Your task to perform on an android device: refresh tabs in the chrome app Image 0: 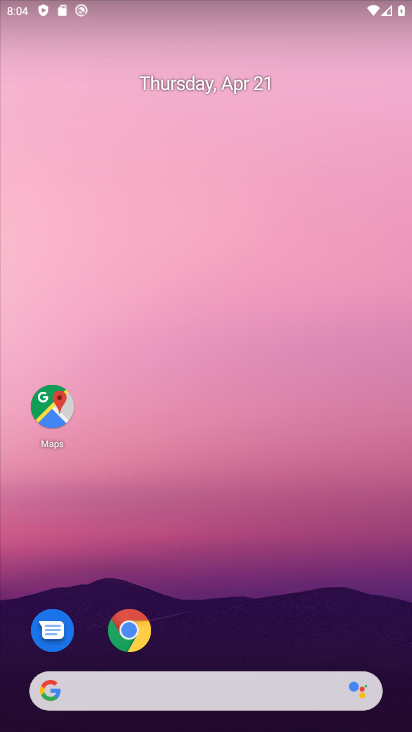
Step 0: click (126, 621)
Your task to perform on an android device: refresh tabs in the chrome app Image 1: 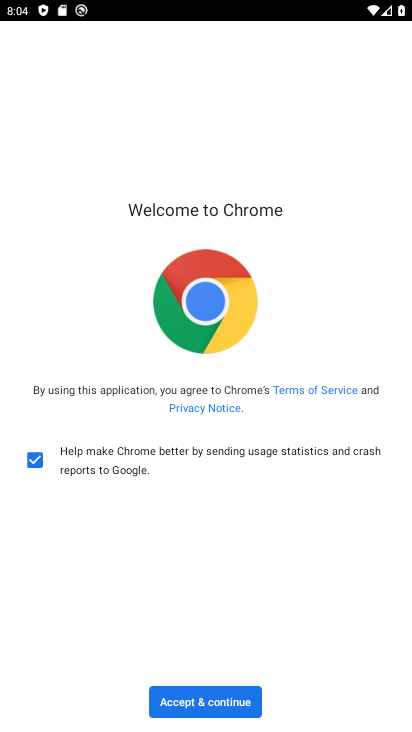
Step 1: click (194, 695)
Your task to perform on an android device: refresh tabs in the chrome app Image 2: 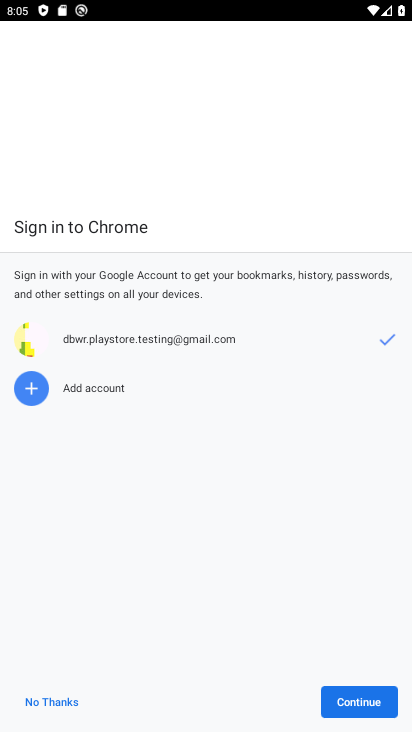
Step 2: click (354, 690)
Your task to perform on an android device: refresh tabs in the chrome app Image 3: 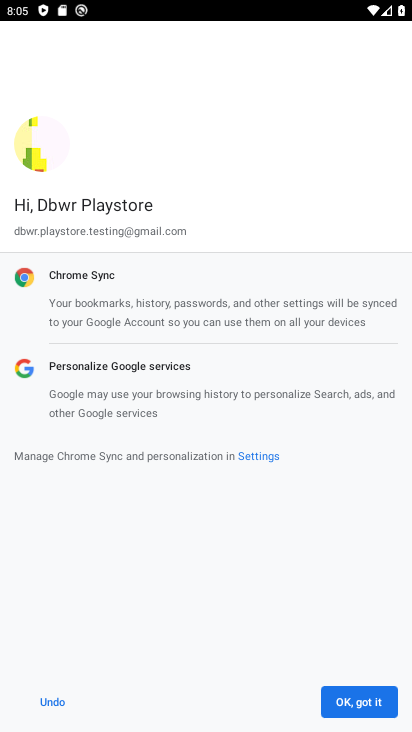
Step 3: click (361, 696)
Your task to perform on an android device: refresh tabs in the chrome app Image 4: 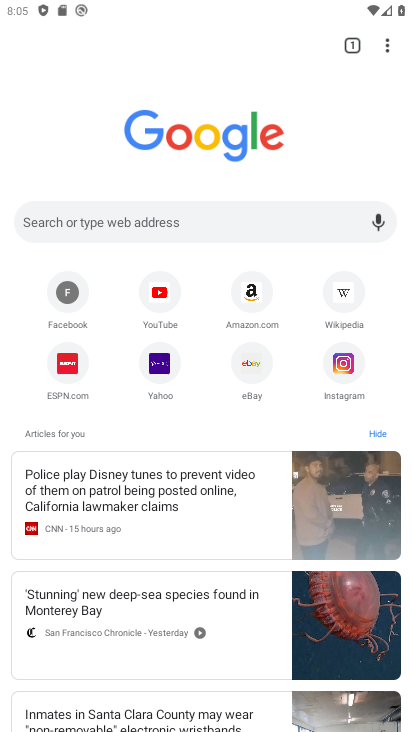
Step 4: click (390, 50)
Your task to perform on an android device: refresh tabs in the chrome app Image 5: 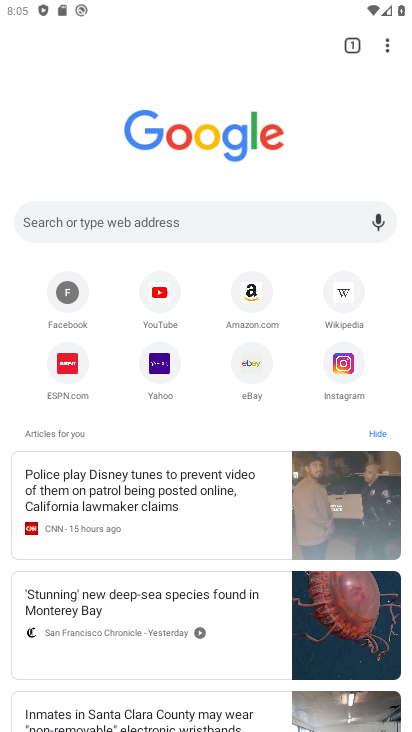
Step 5: click (393, 52)
Your task to perform on an android device: refresh tabs in the chrome app Image 6: 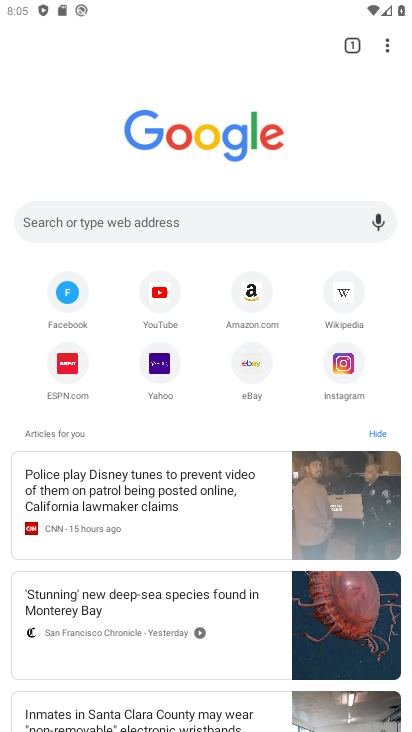
Step 6: click (388, 41)
Your task to perform on an android device: refresh tabs in the chrome app Image 7: 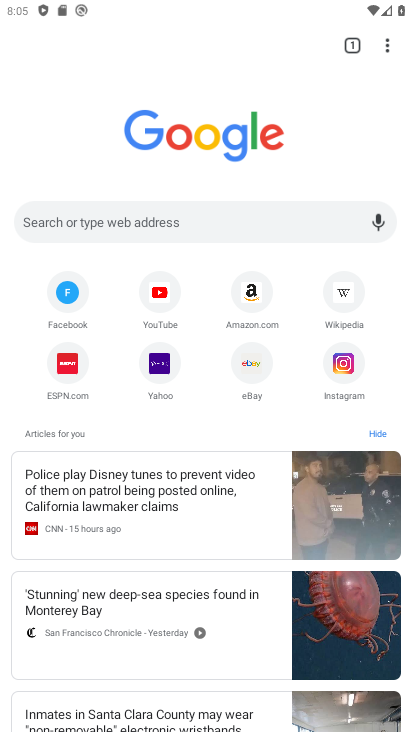
Step 7: click (393, 50)
Your task to perform on an android device: refresh tabs in the chrome app Image 8: 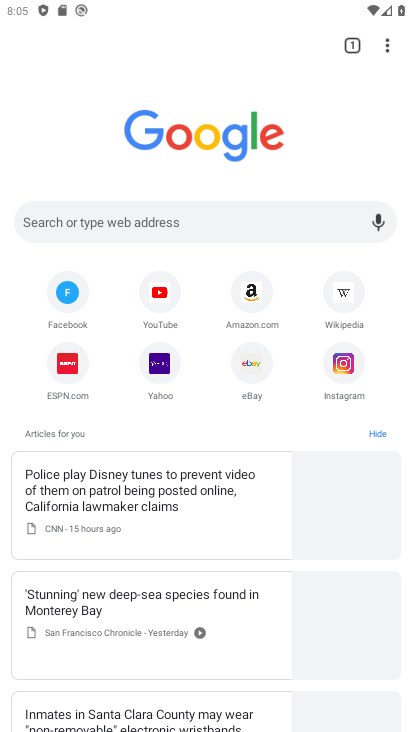
Step 8: click (392, 47)
Your task to perform on an android device: refresh tabs in the chrome app Image 9: 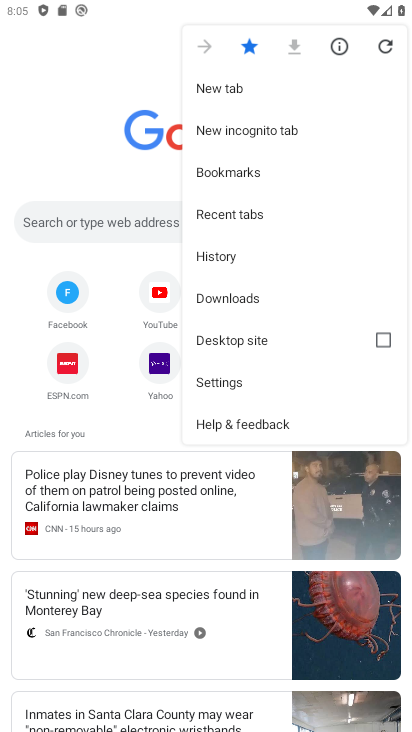
Step 9: click (380, 42)
Your task to perform on an android device: refresh tabs in the chrome app Image 10: 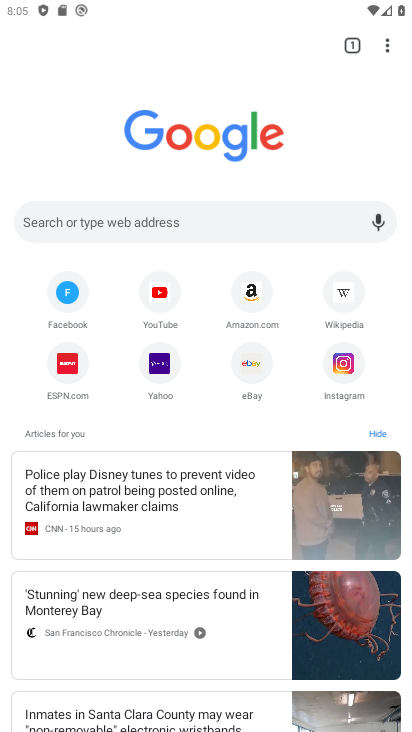
Step 10: task complete